Your task to perform on an android device: Open Google Chrome Image 0: 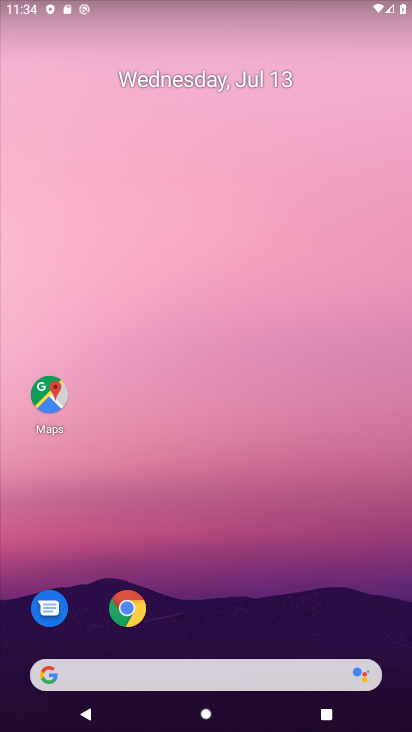
Step 0: click (132, 613)
Your task to perform on an android device: Open Google Chrome Image 1: 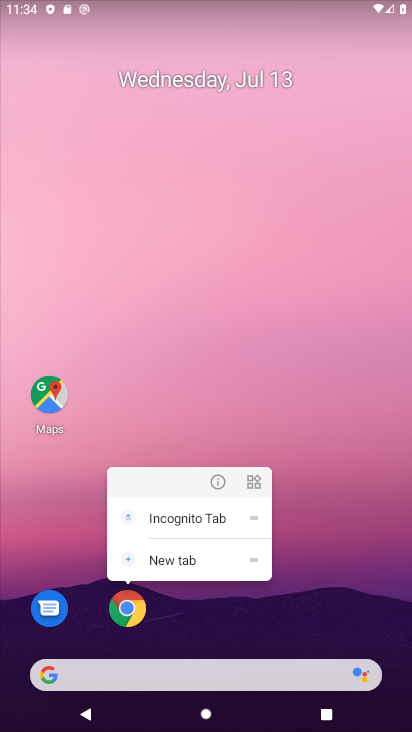
Step 1: click (131, 614)
Your task to perform on an android device: Open Google Chrome Image 2: 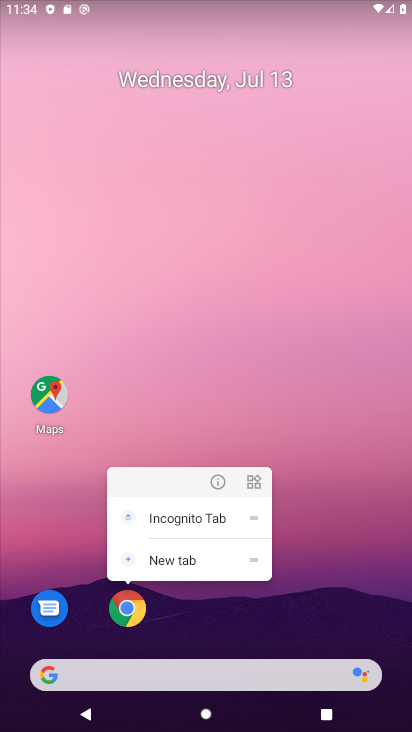
Step 2: click (131, 614)
Your task to perform on an android device: Open Google Chrome Image 3: 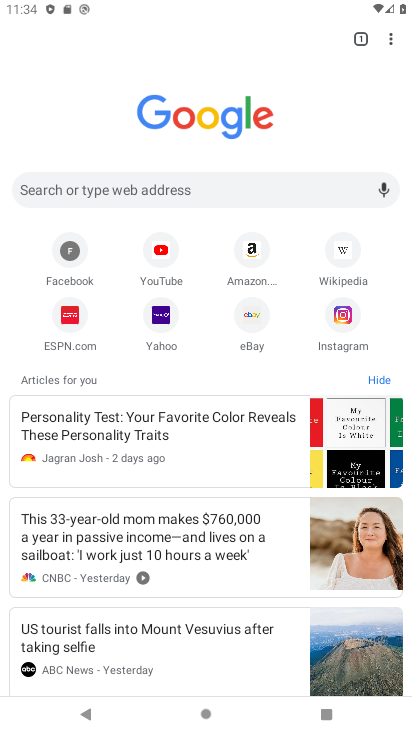
Step 3: task complete